Your task to perform on an android device: turn off location history Image 0: 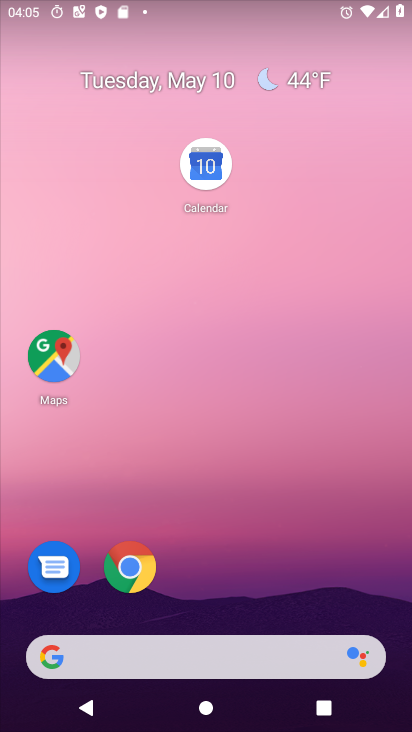
Step 0: drag from (258, 614) to (322, 119)
Your task to perform on an android device: turn off location history Image 1: 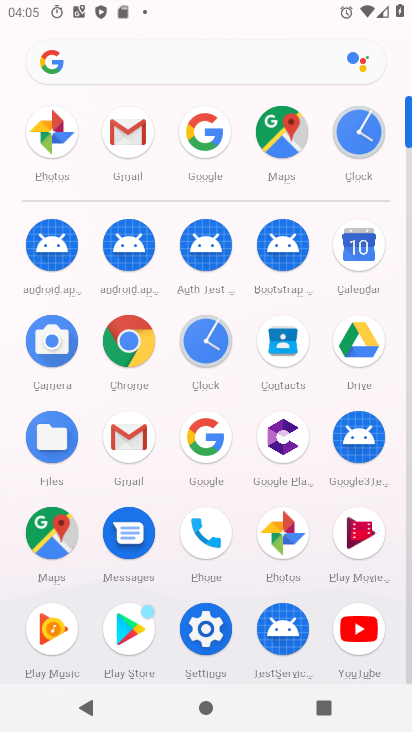
Step 1: click (203, 628)
Your task to perform on an android device: turn off location history Image 2: 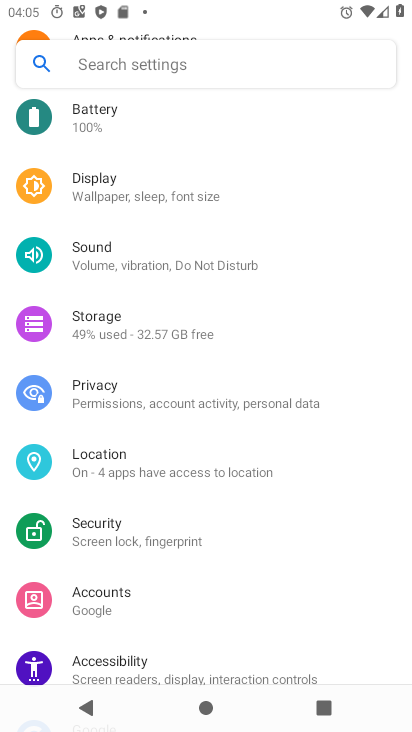
Step 2: drag from (133, 154) to (178, 320)
Your task to perform on an android device: turn off location history Image 3: 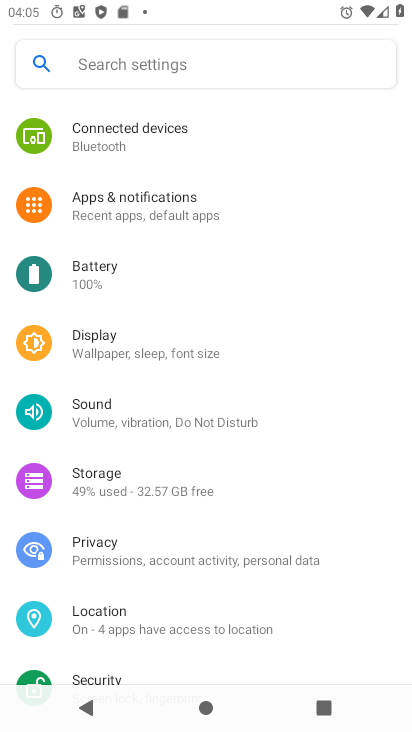
Step 3: click (140, 637)
Your task to perform on an android device: turn off location history Image 4: 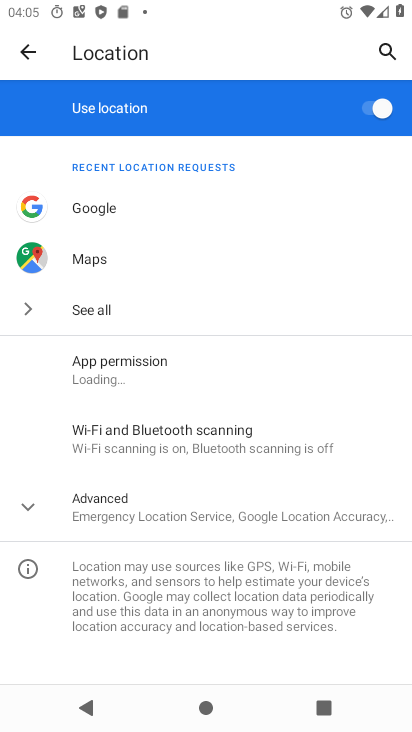
Step 4: click (121, 497)
Your task to perform on an android device: turn off location history Image 5: 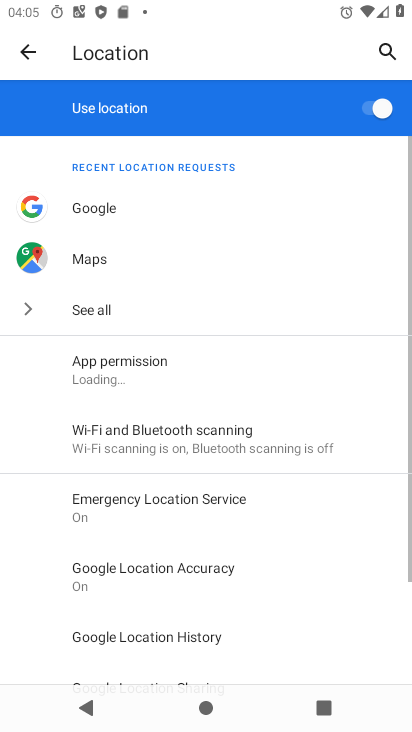
Step 5: drag from (300, 557) to (331, 330)
Your task to perform on an android device: turn off location history Image 6: 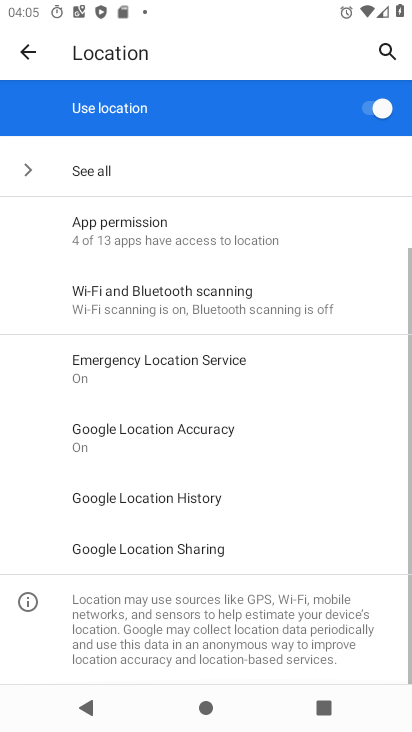
Step 6: click (186, 513)
Your task to perform on an android device: turn off location history Image 7: 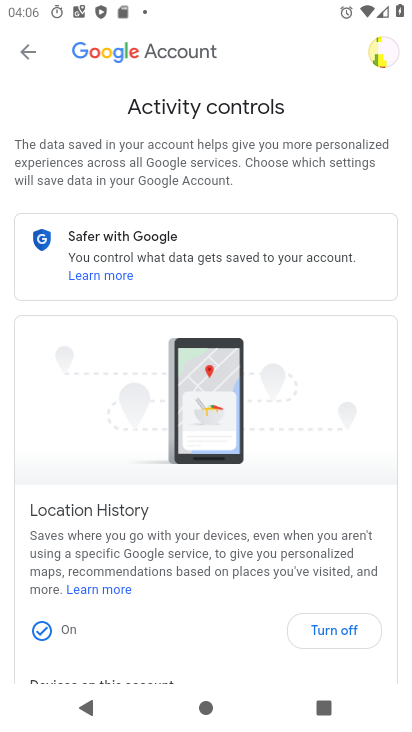
Step 7: click (332, 632)
Your task to perform on an android device: turn off location history Image 8: 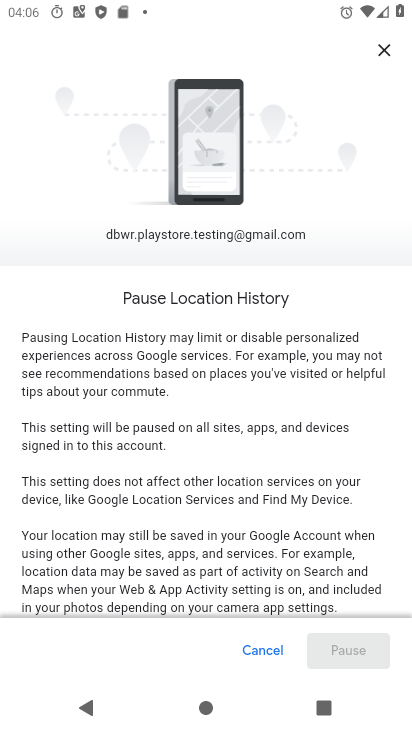
Step 8: drag from (336, 550) to (411, 34)
Your task to perform on an android device: turn off location history Image 9: 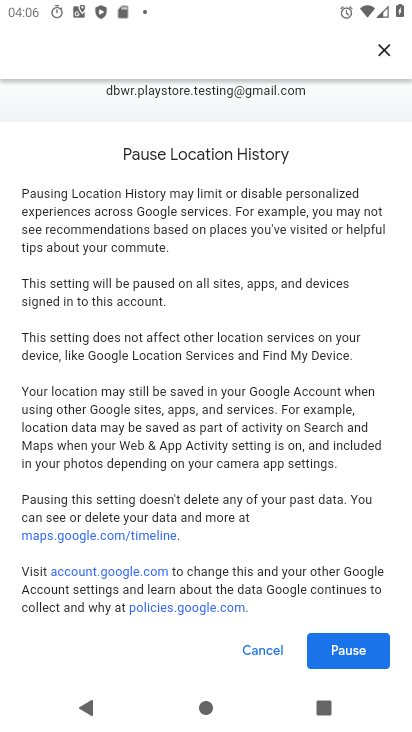
Step 9: click (345, 656)
Your task to perform on an android device: turn off location history Image 10: 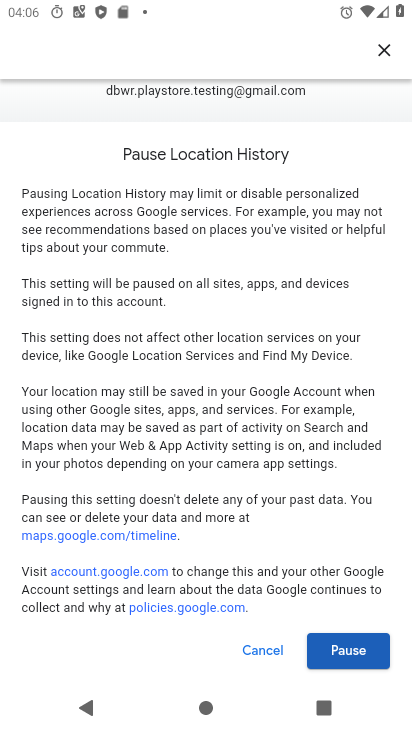
Step 10: click (357, 652)
Your task to perform on an android device: turn off location history Image 11: 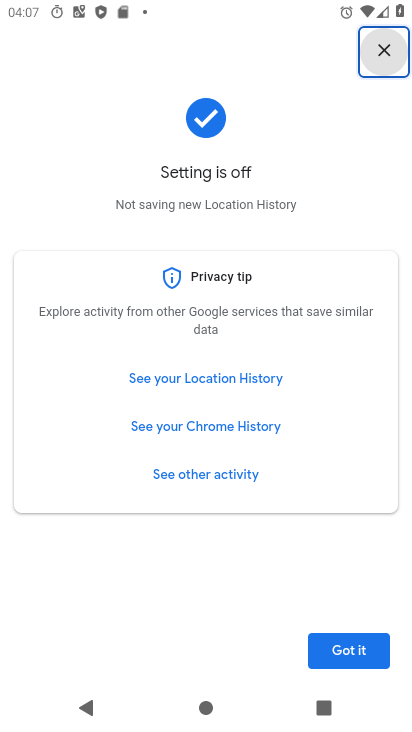
Step 11: click (357, 652)
Your task to perform on an android device: turn off location history Image 12: 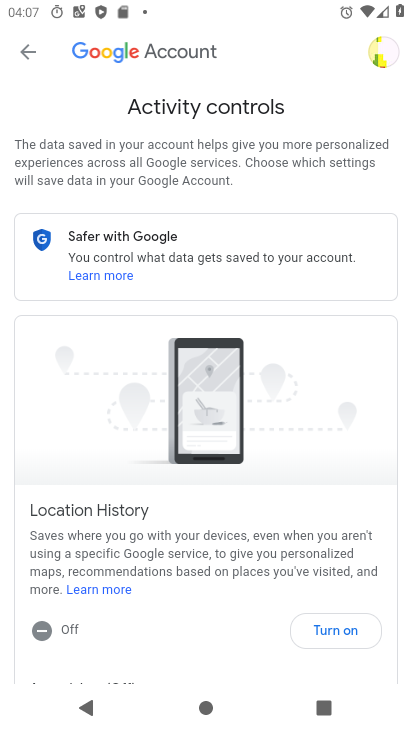
Step 12: task complete